Your task to perform on an android device: Open Google Chrome Image 0: 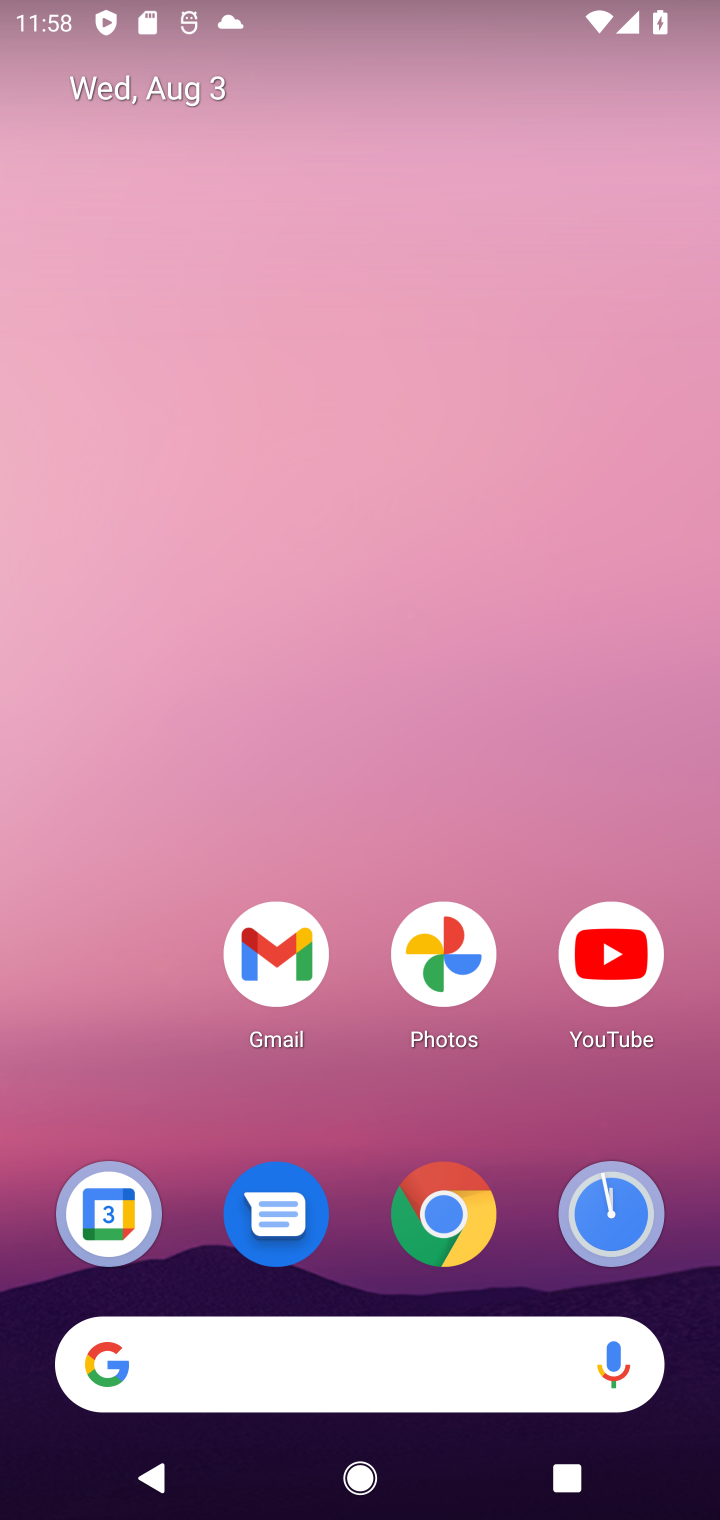
Step 0: drag from (236, 1126) to (355, 593)
Your task to perform on an android device: Open Google Chrome Image 1: 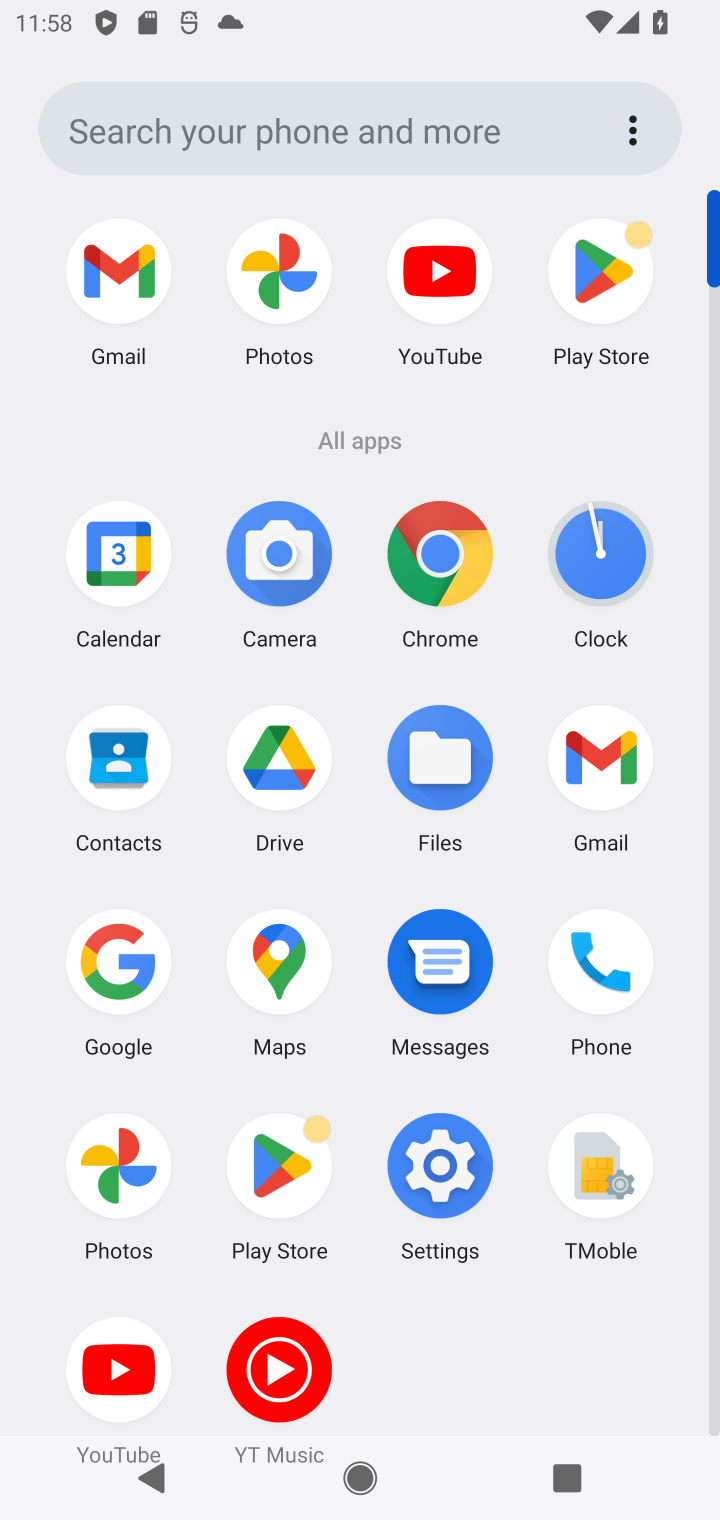
Step 1: click (443, 551)
Your task to perform on an android device: Open Google Chrome Image 2: 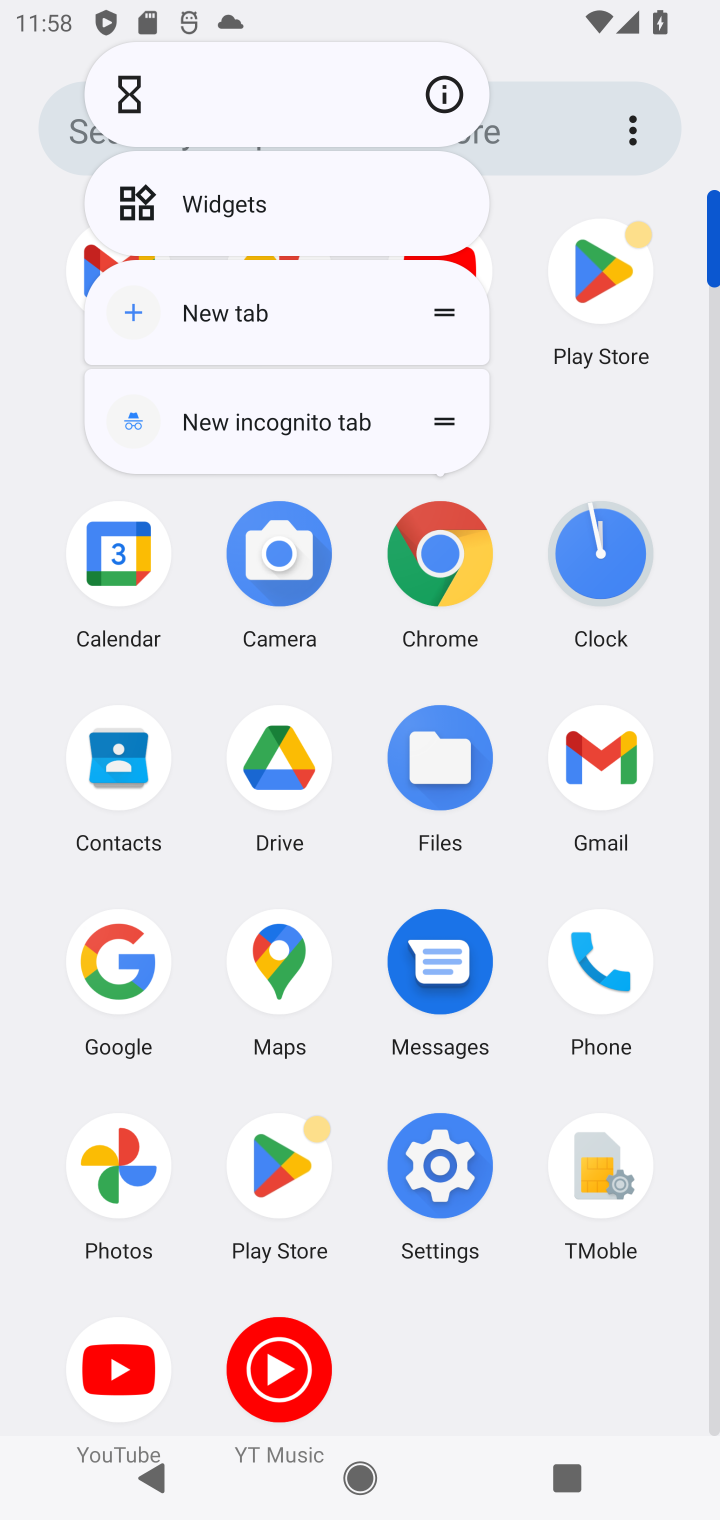
Step 2: click (421, 564)
Your task to perform on an android device: Open Google Chrome Image 3: 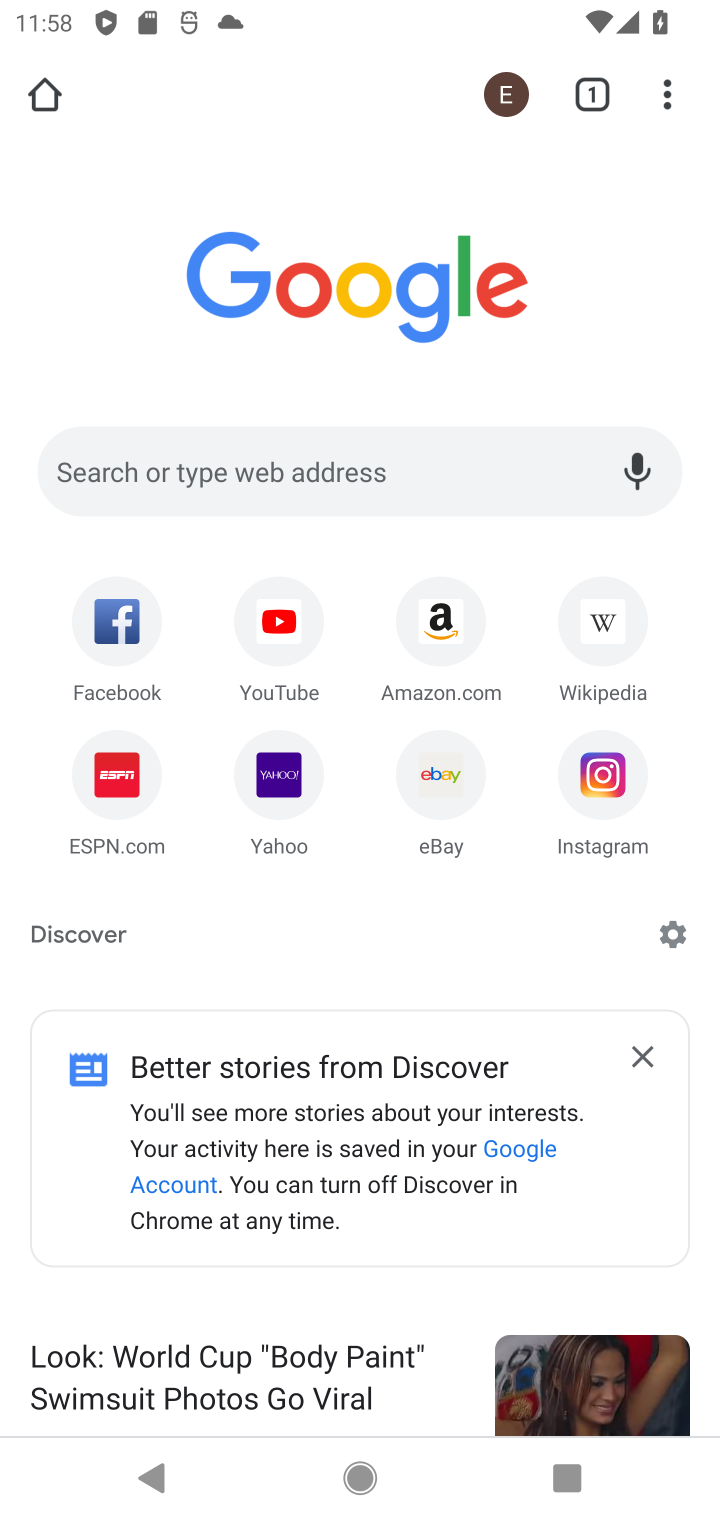
Step 3: task complete